Your task to perform on an android device: Go to Maps Image 0: 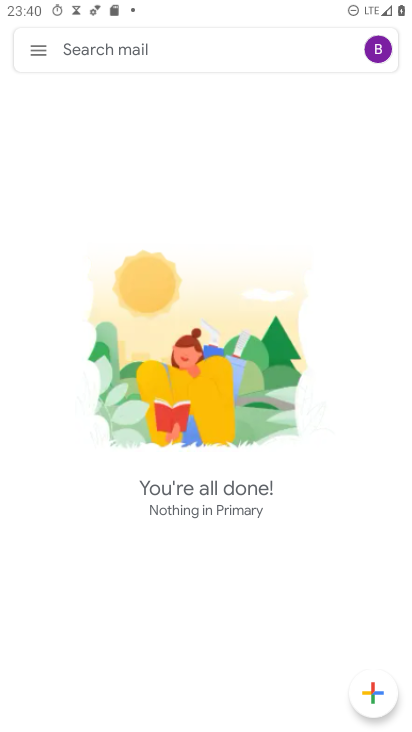
Step 0: press home button
Your task to perform on an android device: Go to Maps Image 1: 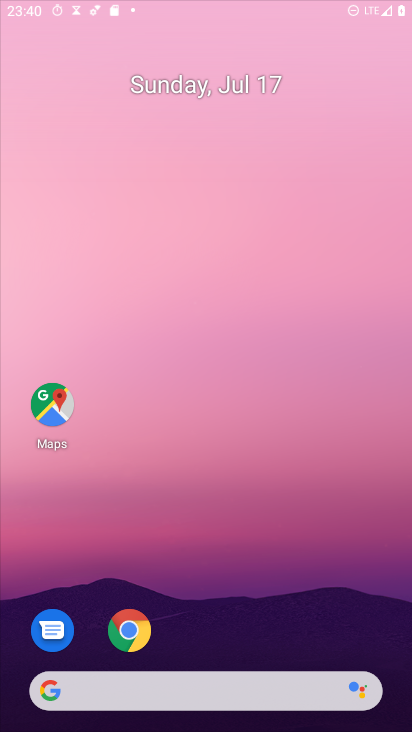
Step 1: drag from (288, 659) to (297, 12)
Your task to perform on an android device: Go to Maps Image 2: 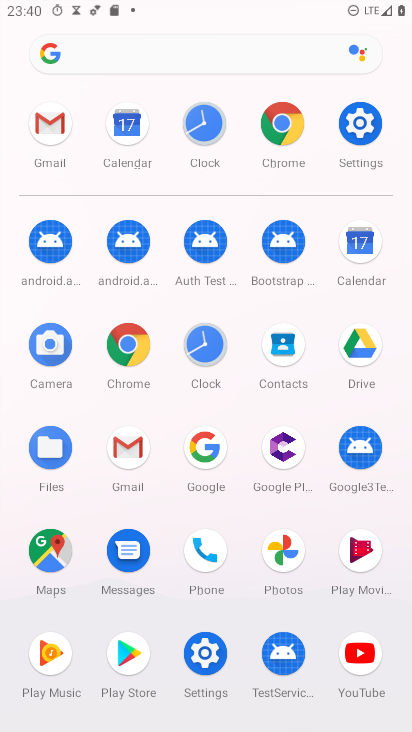
Step 2: click (38, 543)
Your task to perform on an android device: Go to Maps Image 3: 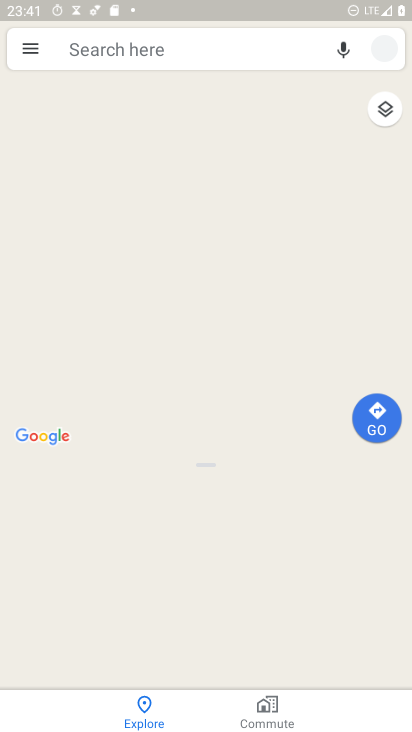
Step 3: task complete